Your task to perform on an android device: Check the news Image 0: 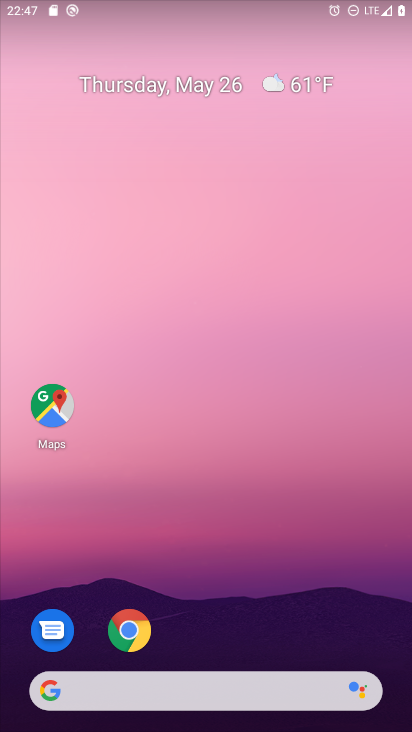
Step 0: drag from (237, 576) to (237, 8)
Your task to perform on an android device: Check the news Image 1: 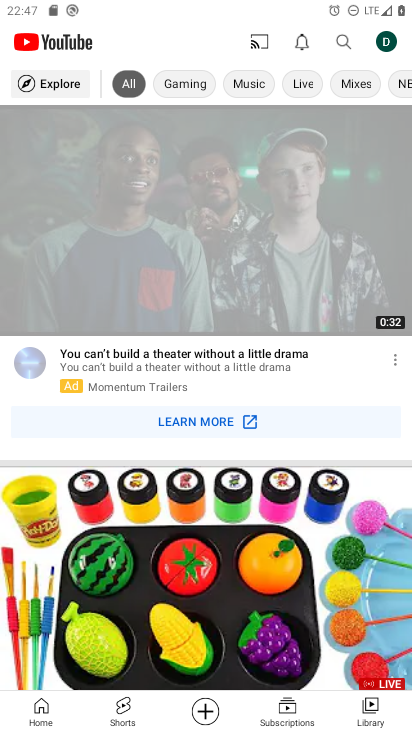
Step 1: press back button
Your task to perform on an android device: Check the news Image 2: 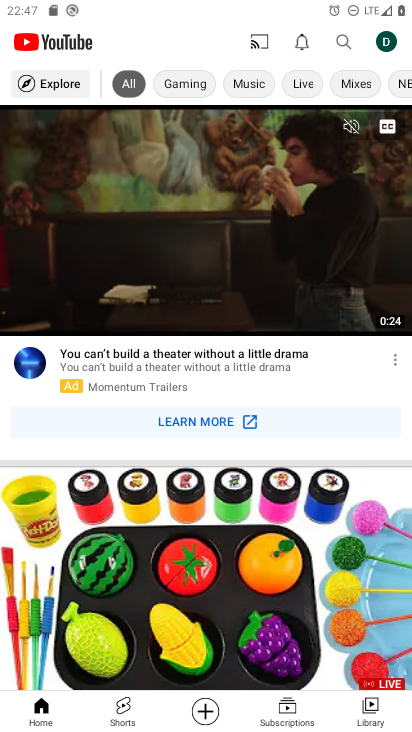
Step 2: press back button
Your task to perform on an android device: Check the news Image 3: 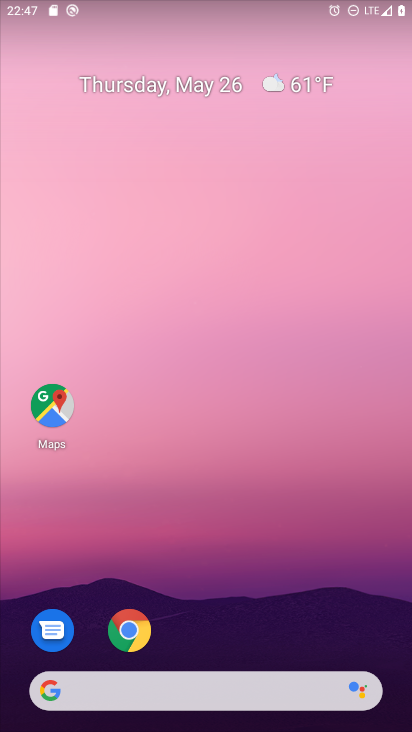
Step 3: click (237, 678)
Your task to perform on an android device: Check the news Image 4: 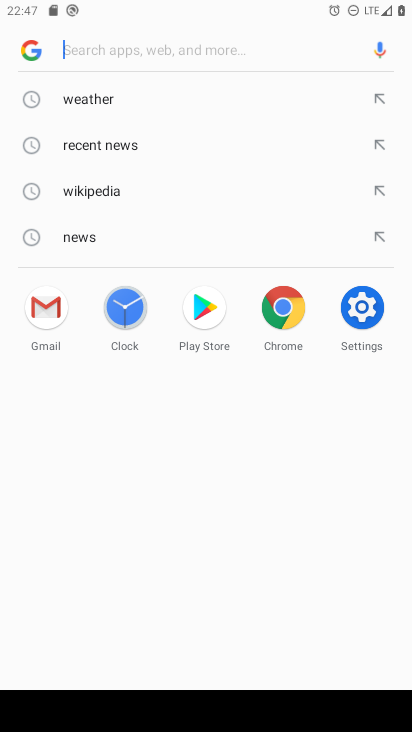
Step 4: click (85, 235)
Your task to perform on an android device: Check the news Image 5: 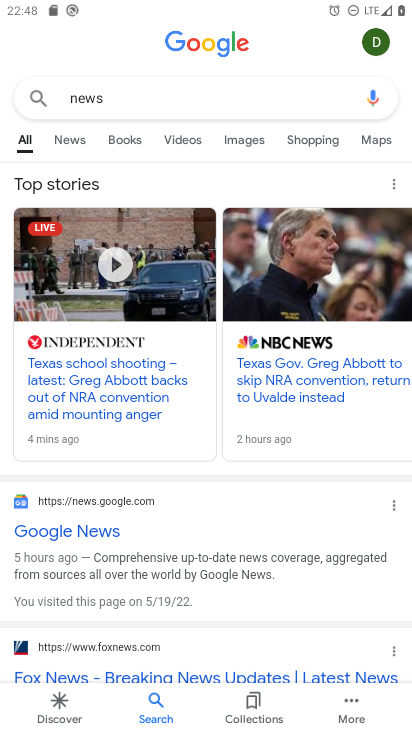
Step 5: click (71, 131)
Your task to perform on an android device: Check the news Image 6: 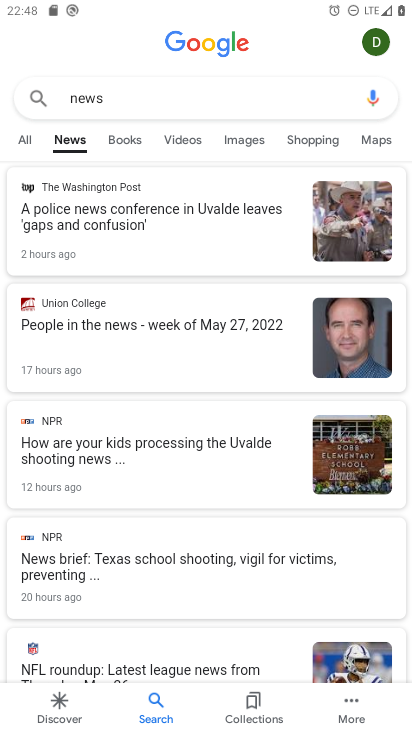
Step 6: task complete